Your task to perform on an android device: turn on translation in the chrome app Image 0: 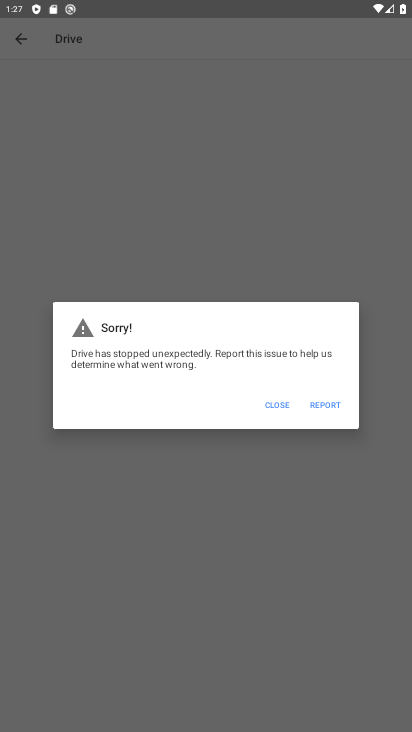
Step 0: press home button
Your task to perform on an android device: turn on translation in the chrome app Image 1: 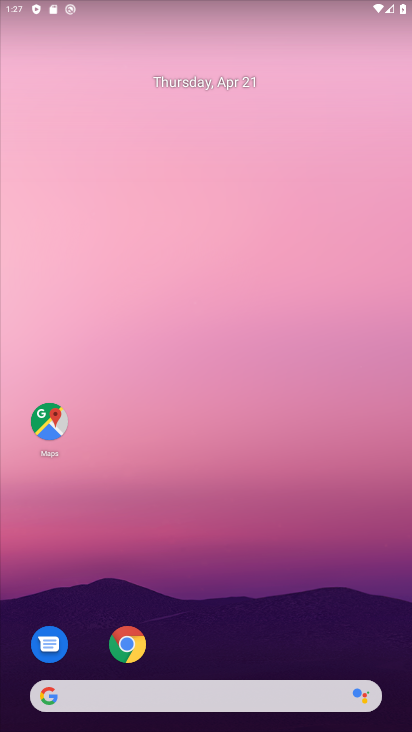
Step 1: drag from (373, 569) to (308, 76)
Your task to perform on an android device: turn on translation in the chrome app Image 2: 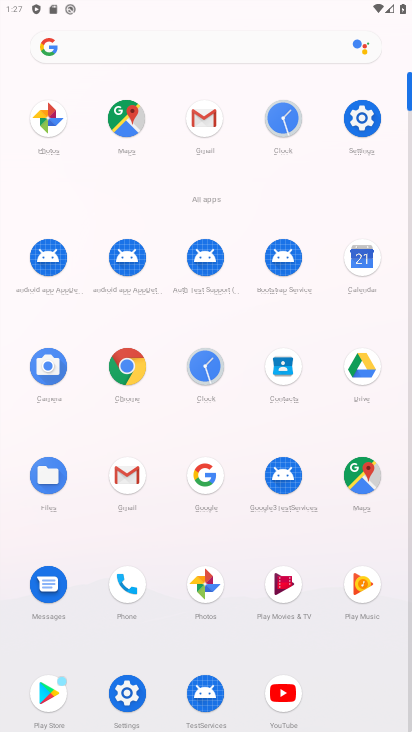
Step 2: click (120, 380)
Your task to perform on an android device: turn on translation in the chrome app Image 3: 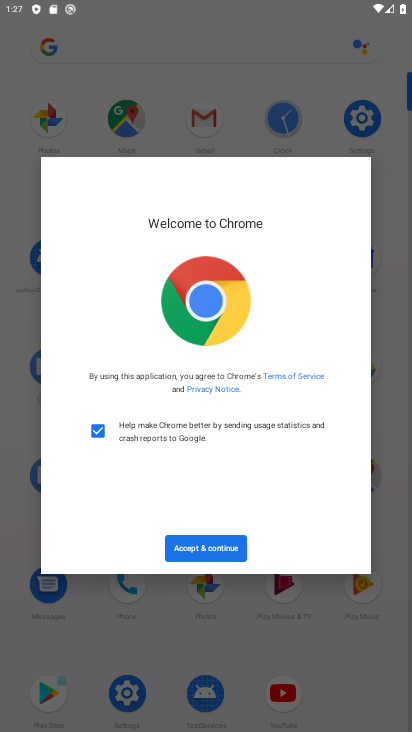
Step 3: click (212, 540)
Your task to perform on an android device: turn on translation in the chrome app Image 4: 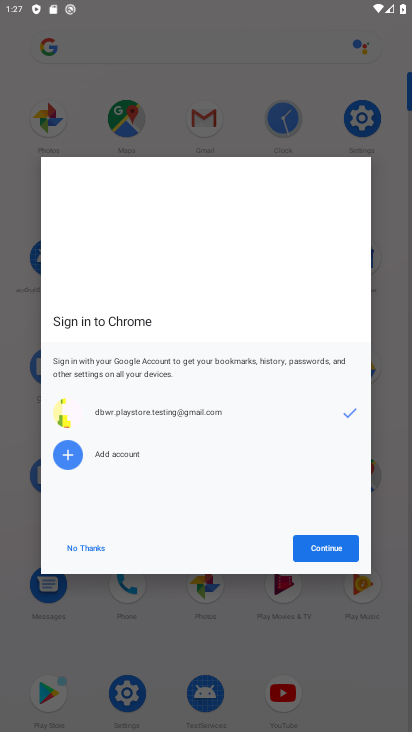
Step 4: click (314, 551)
Your task to perform on an android device: turn on translation in the chrome app Image 5: 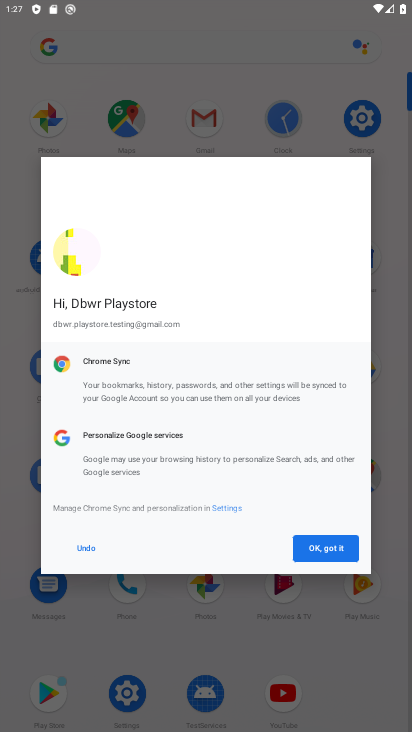
Step 5: click (335, 548)
Your task to perform on an android device: turn on translation in the chrome app Image 6: 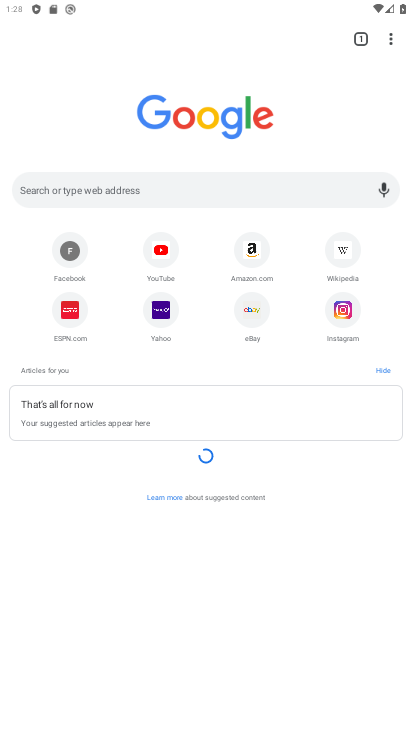
Step 6: drag from (389, 45) to (248, 324)
Your task to perform on an android device: turn on translation in the chrome app Image 7: 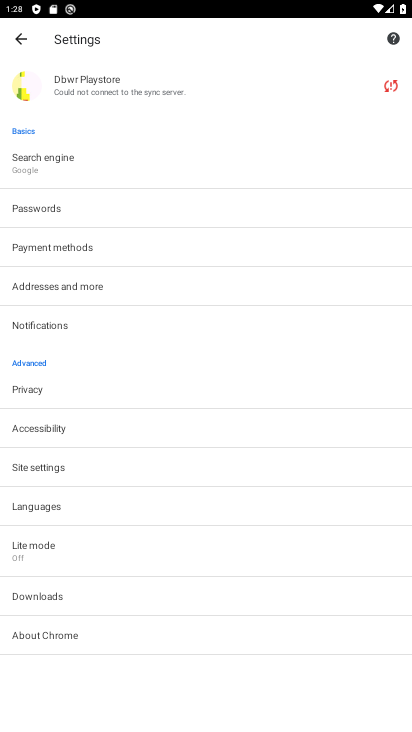
Step 7: click (83, 492)
Your task to perform on an android device: turn on translation in the chrome app Image 8: 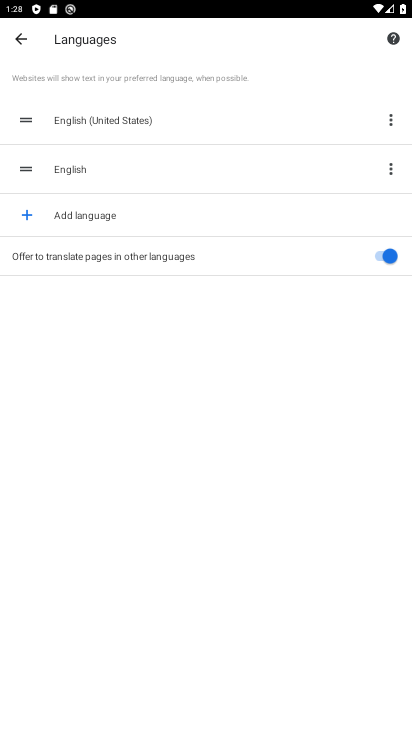
Step 8: task complete